Your task to perform on an android device: Go to battery settings Image 0: 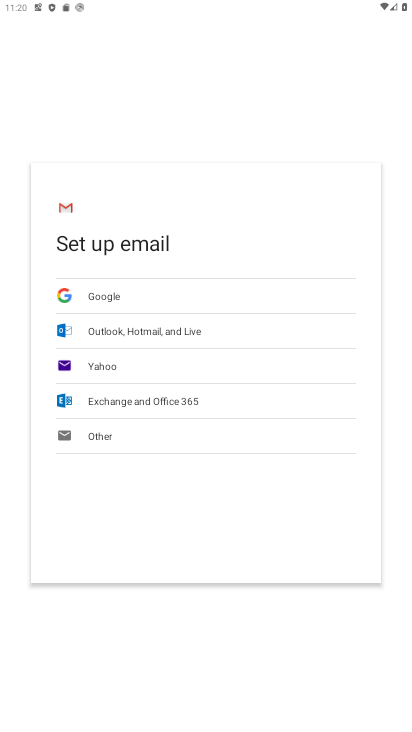
Step 0: press home button
Your task to perform on an android device: Go to battery settings Image 1: 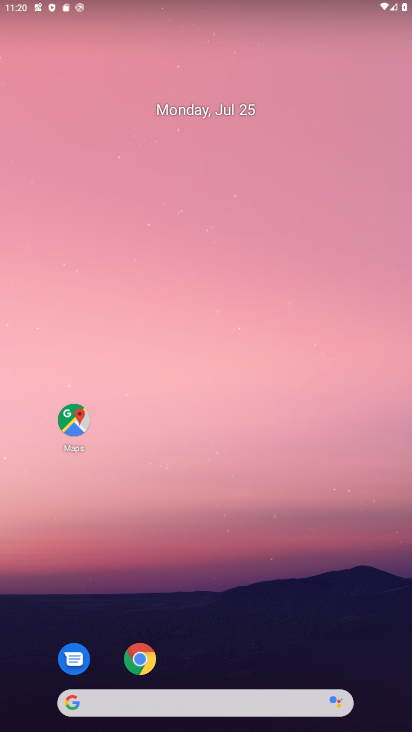
Step 1: drag from (31, 695) to (357, 597)
Your task to perform on an android device: Go to battery settings Image 2: 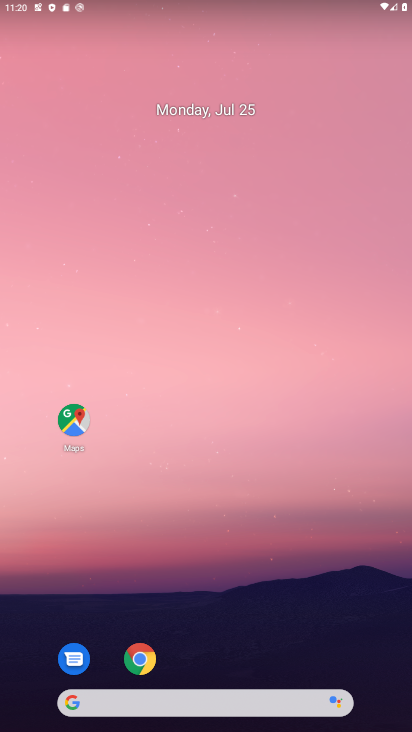
Step 2: click (298, 220)
Your task to perform on an android device: Go to battery settings Image 3: 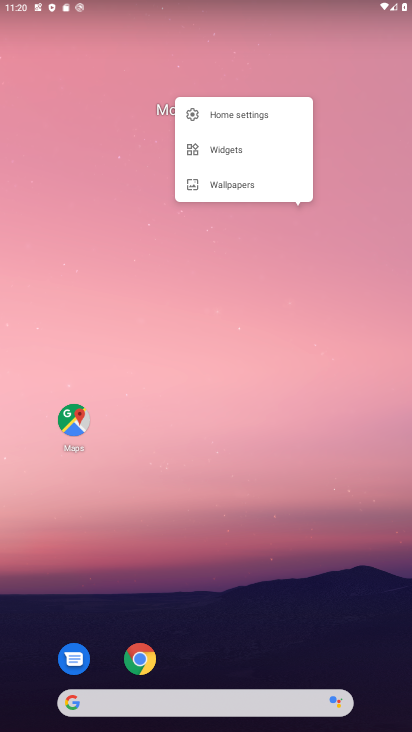
Step 3: drag from (94, 387) to (206, 20)
Your task to perform on an android device: Go to battery settings Image 4: 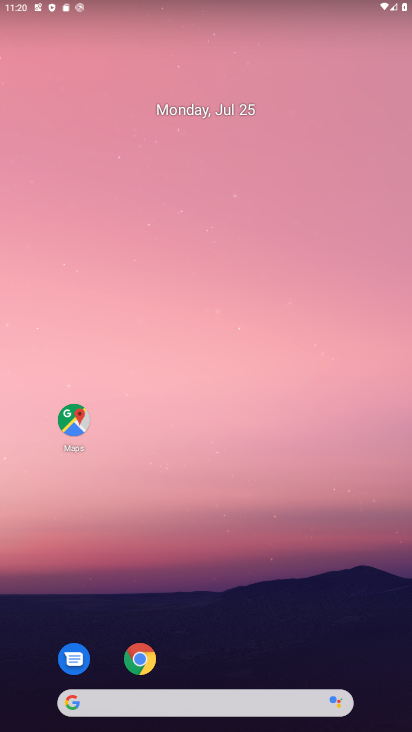
Step 4: drag from (45, 682) to (204, 162)
Your task to perform on an android device: Go to battery settings Image 5: 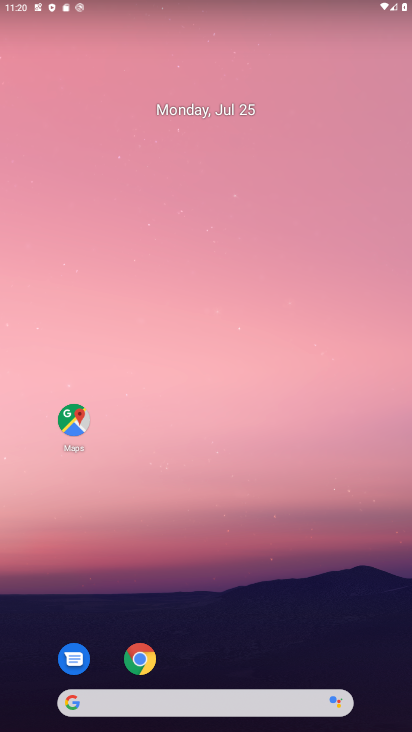
Step 5: drag from (48, 655) to (237, 237)
Your task to perform on an android device: Go to battery settings Image 6: 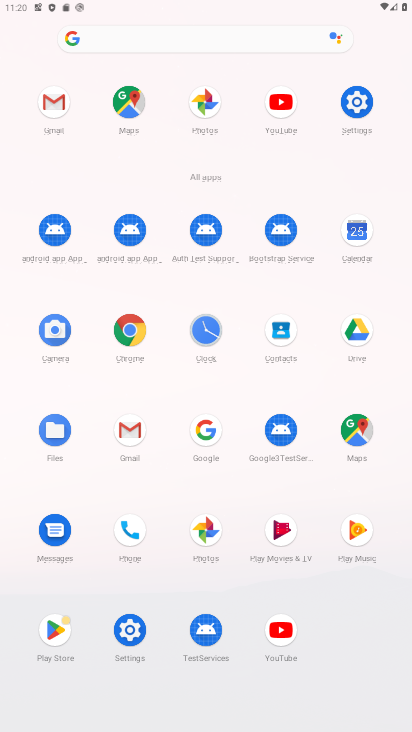
Step 6: click (128, 636)
Your task to perform on an android device: Go to battery settings Image 7: 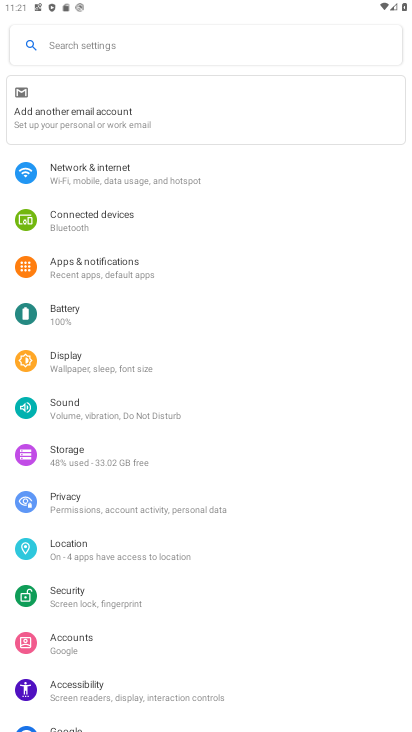
Step 7: click (104, 317)
Your task to perform on an android device: Go to battery settings Image 8: 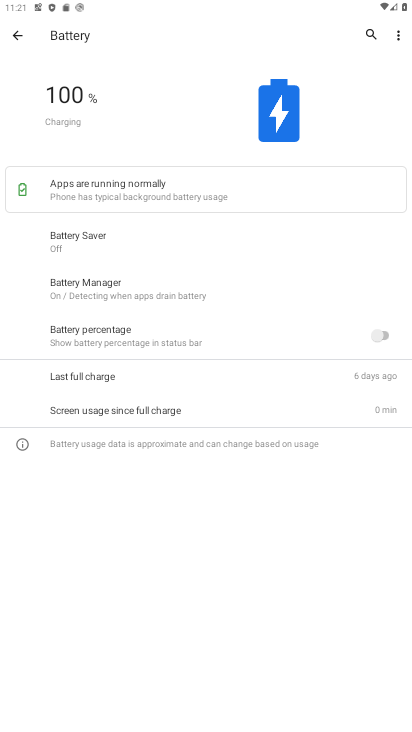
Step 8: task complete